Your task to perform on an android device: Show me the alarms in the clock app Image 0: 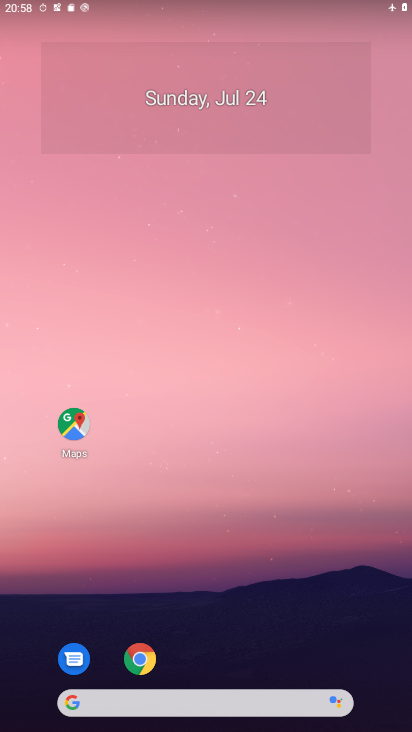
Step 0: drag from (231, 730) to (179, 254)
Your task to perform on an android device: Show me the alarms in the clock app Image 1: 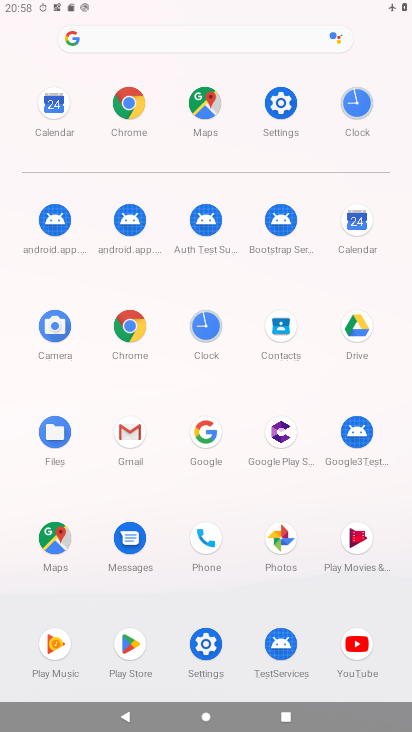
Step 1: click (203, 322)
Your task to perform on an android device: Show me the alarms in the clock app Image 2: 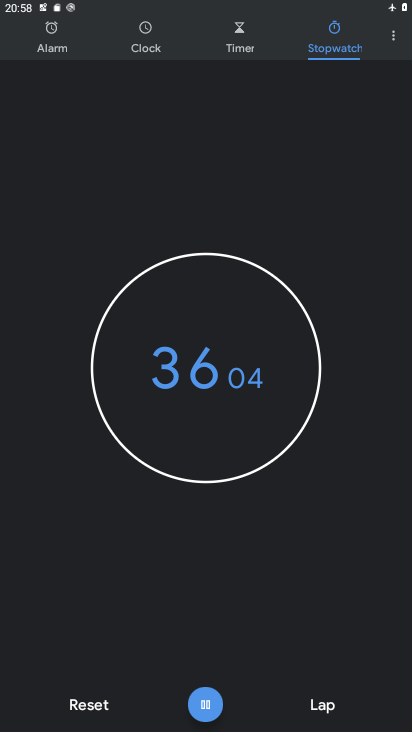
Step 2: click (49, 32)
Your task to perform on an android device: Show me the alarms in the clock app Image 3: 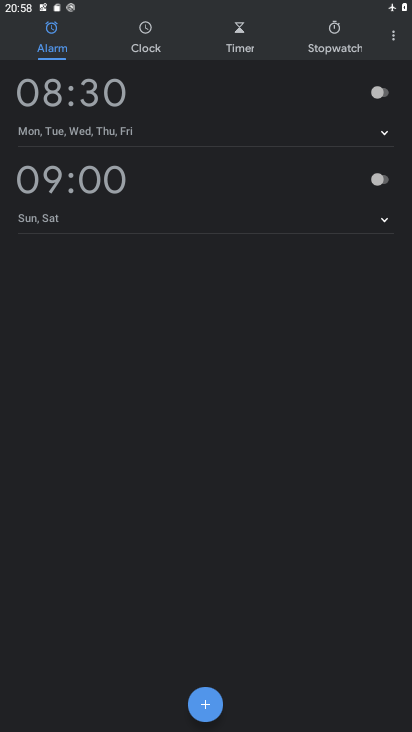
Step 3: task complete